Your task to perform on an android device: Open the map Image 0: 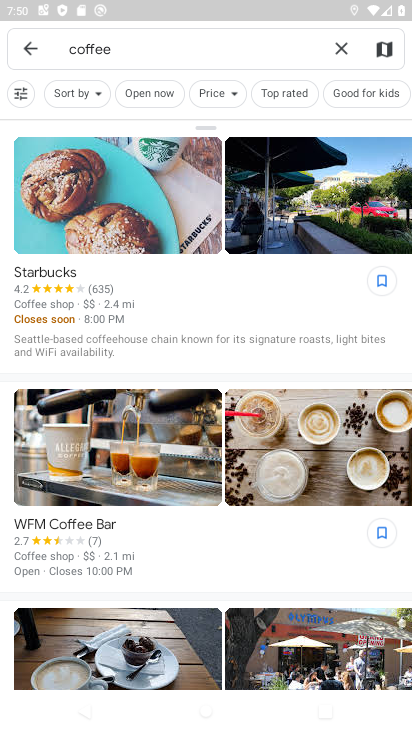
Step 0: drag from (234, 563) to (232, 70)
Your task to perform on an android device: Open the map Image 1: 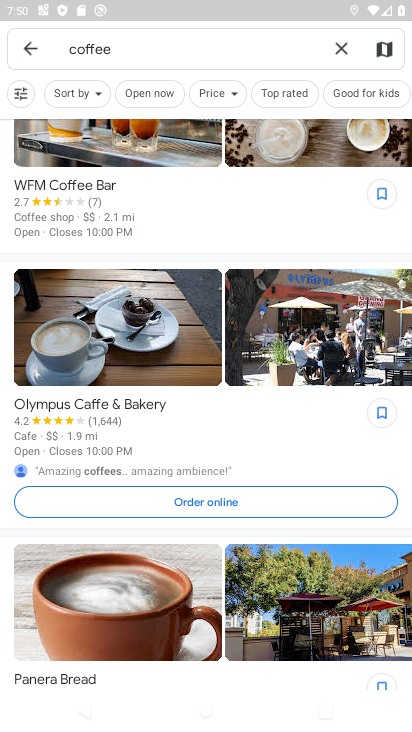
Step 1: task complete